Your task to perform on an android device: Go to Maps Image 0: 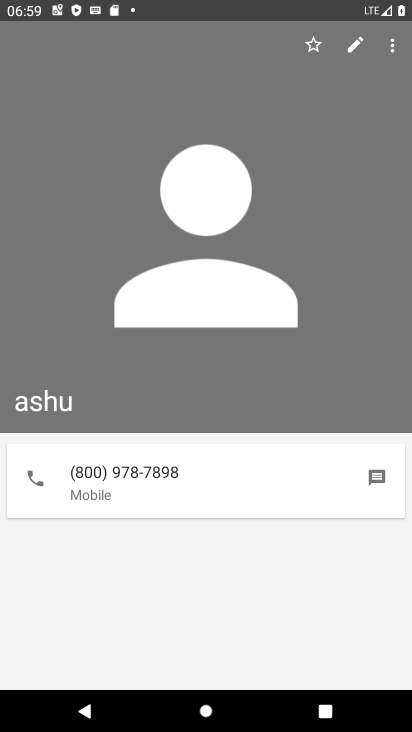
Step 0: press home button
Your task to perform on an android device: Go to Maps Image 1: 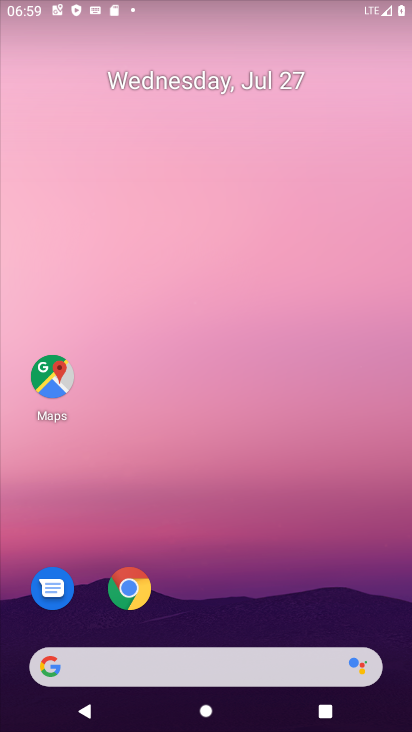
Step 1: drag from (222, 657) to (311, 7)
Your task to perform on an android device: Go to Maps Image 2: 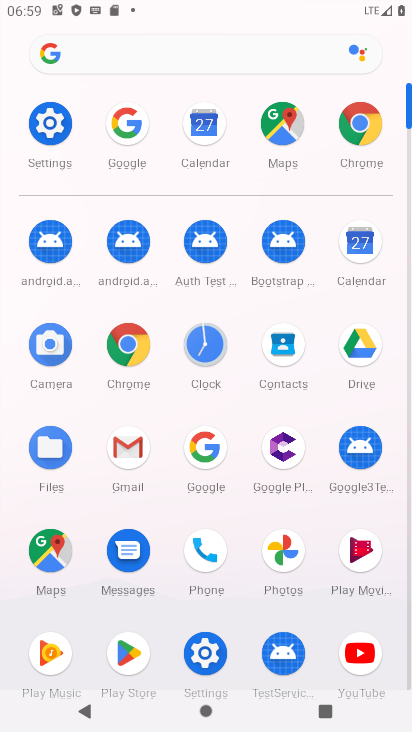
Step 2: click (53, 544)
Your task to perform on an android device: Go to Maps Image 3: 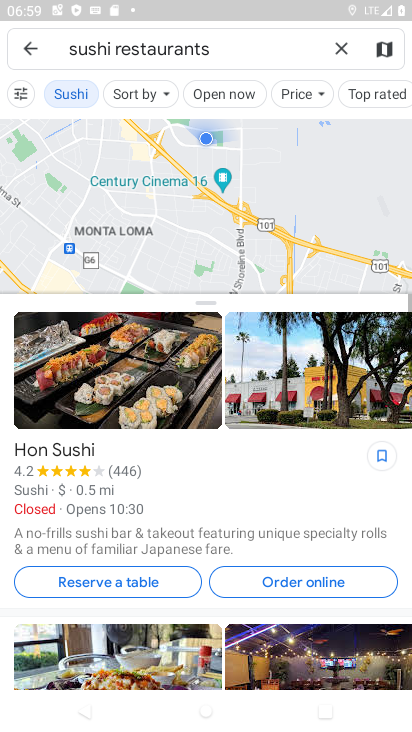
Step 3: task complete